Your task to perform on an android device: choose inbox layout in the gmail app Image 0: 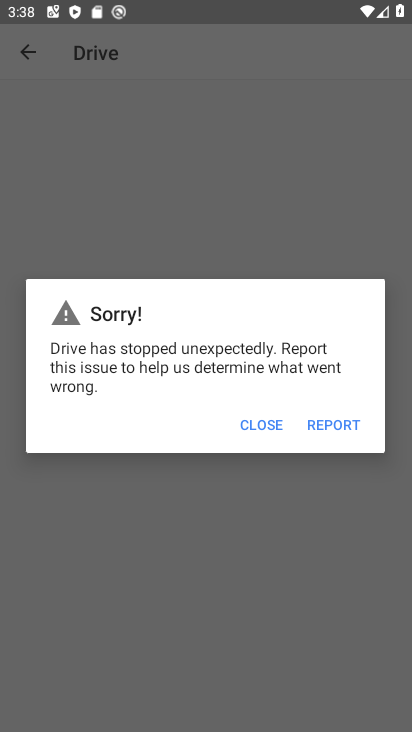
Step 0: press home button
Your task to perform on an android device: choose inbox layout in the gmail app Image 1: 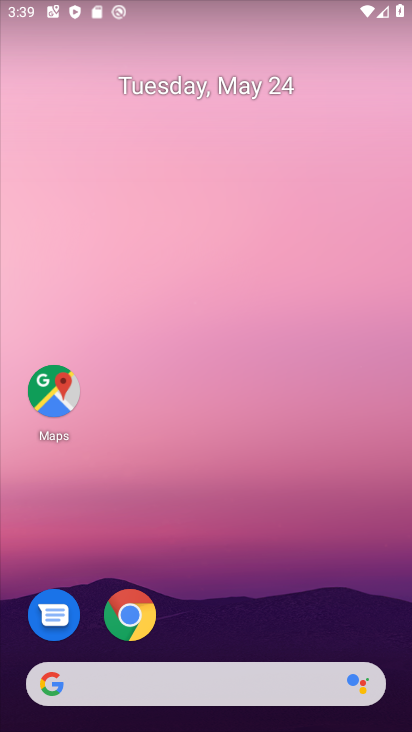
Step 1: drag from (234, 719) to (230, 258)
Your task to perform on an android device: choose inbox layout in the gmail app Image 2: 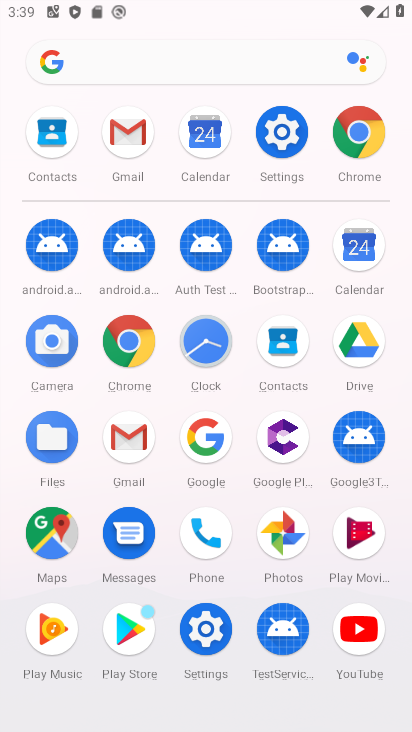
Step 2: click (129, 435)
Your task to perform on an android device: choose inbox layout in the gmail app Image 3: 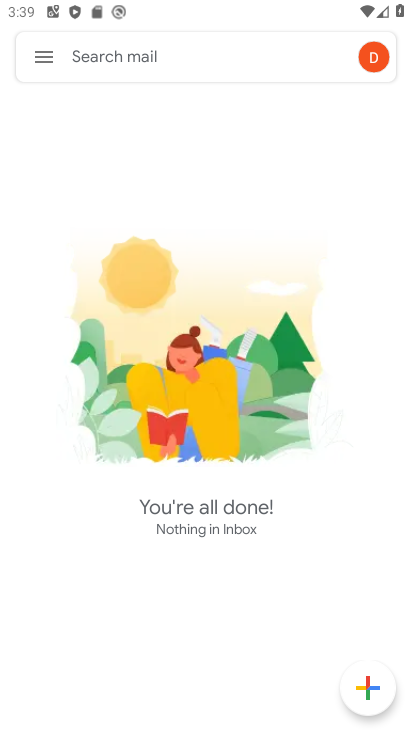
Step 3: click (40, 48)
Your task to perform on an android device: choose inbox layout in the gmail app Image 4: 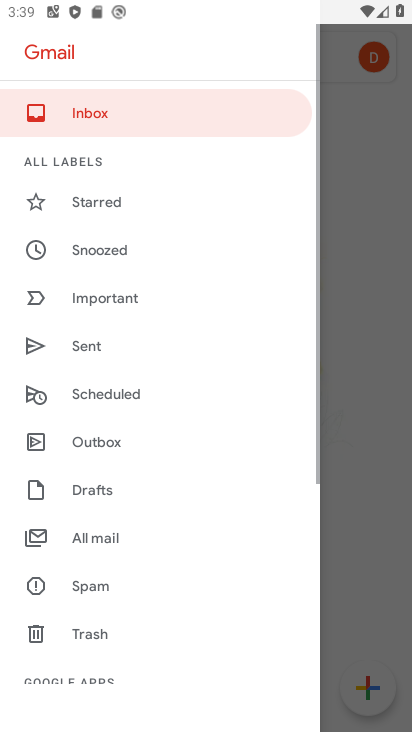
Step 4: drag from (141, 657) to (139, 320)
Your task to perform on an android device: choose inbox layout in the gmail app Image 5: 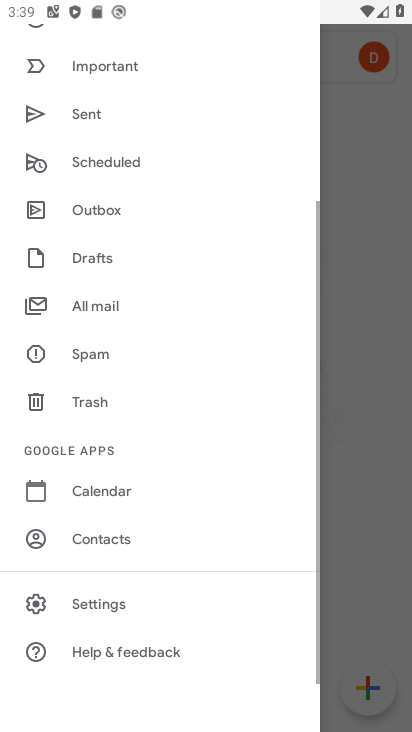
Step 5: click (134, 607)
Your task to perform on an android device: choose inbox layout in the gmail app Image 6: 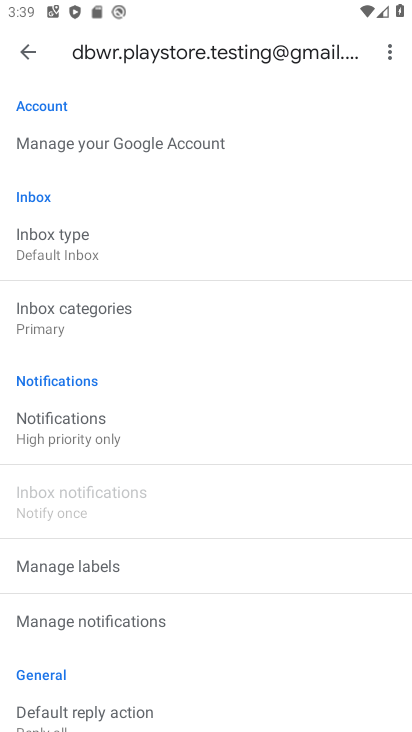
Step 6: click (70, 244)
Your task to perform on an android device: choose inbox layout in the gmail app Image 7: 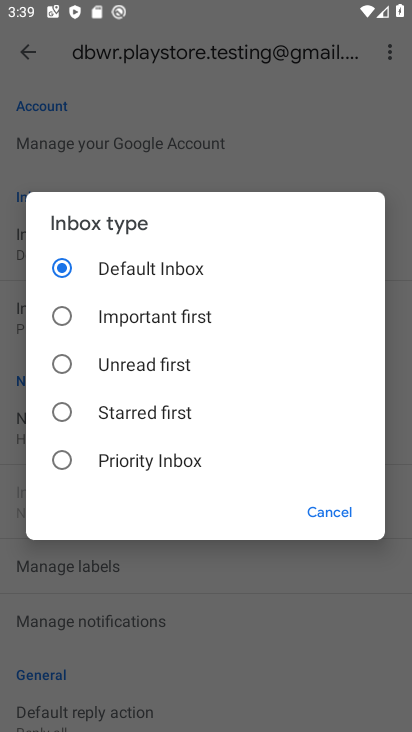
Step 7: click (62, 312)
Your task to perform on an android device: choose inbox layout in the gmail app Image 8: 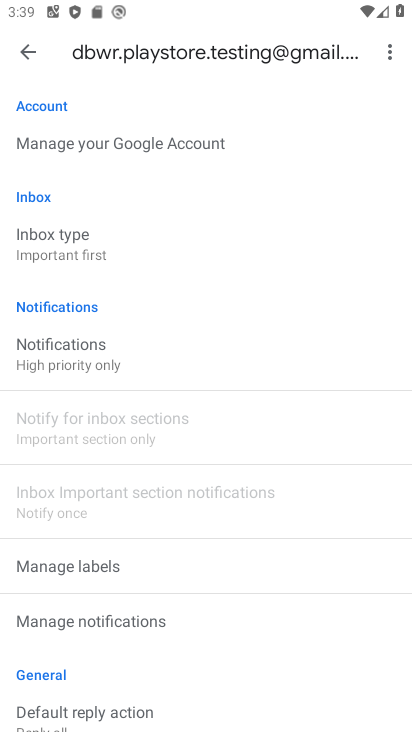
Step 8: task complete